Your task to perform on an android device: star an email in the gmail app Image 0: 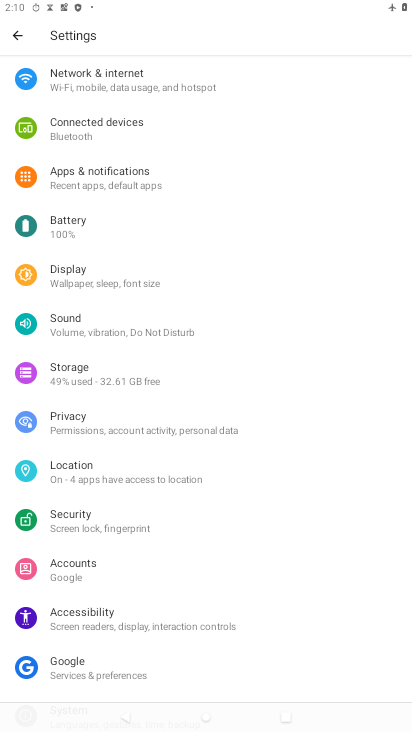
Step 0: press home button
Your task to perform on an android device: star an email in the gmail app Image 1: 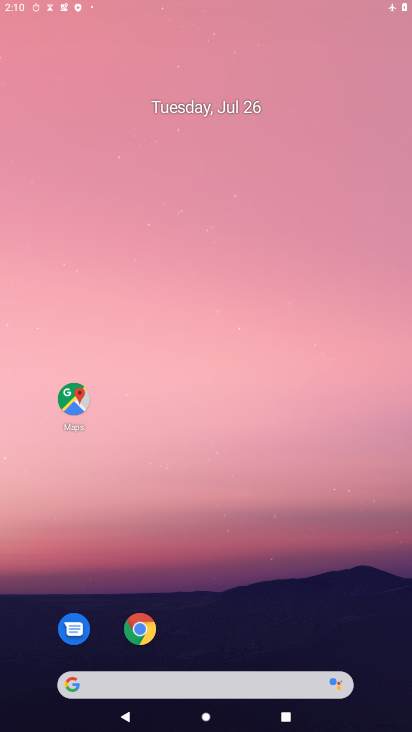
Step 1: drag from (320, 668) to (385, 76)
Your task to perform on an android device: star an email in the gmail app Image 2: 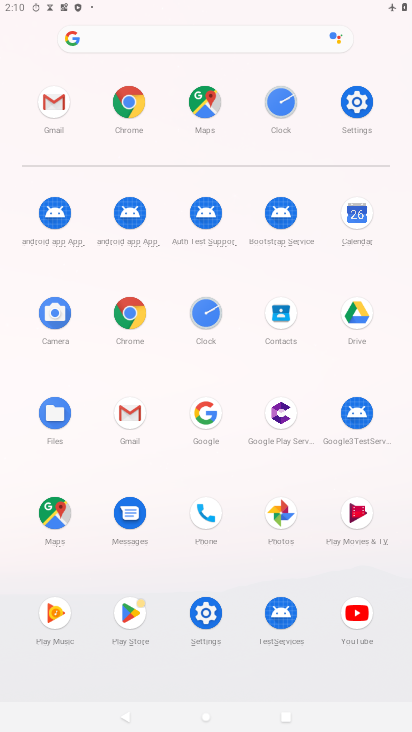
Step 2: click (127, 409)
Your task to perform on an android device: star an email in the gmail app Image 3: 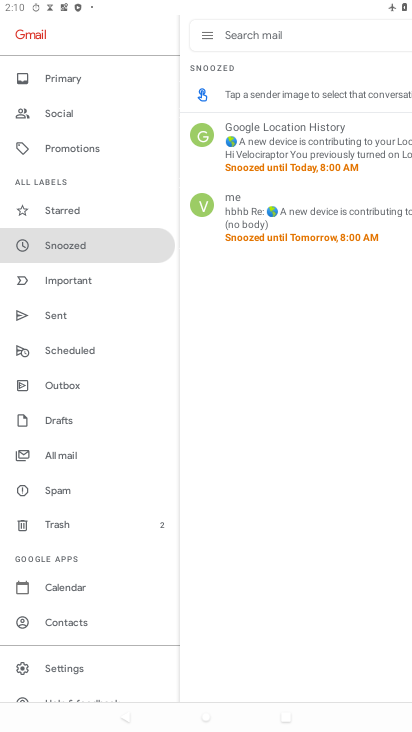
Step 3: click (80, 215)
Your task to perform on an android device: star an email in the gmail app Image 4: 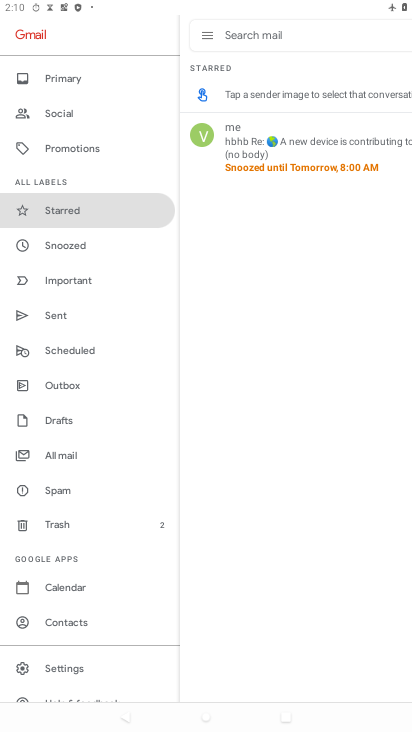
Step 4: click (89, 241)
Your task to perform on an android device: star an email in the gmail app Image 5: 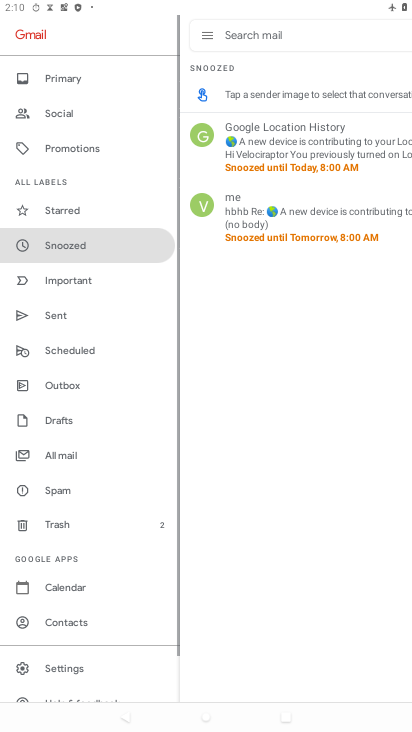
Step 5: drag from (184, 280) to (11, 279)
Your task to perform on an android device: star an email in the gmail app Image 6: 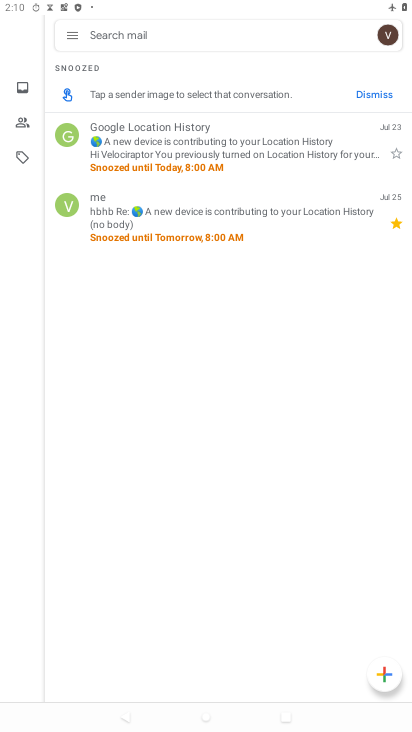
Step 6: click (398, 150)
Your task to perform on an android device: star an email in the gmail app Image 7: 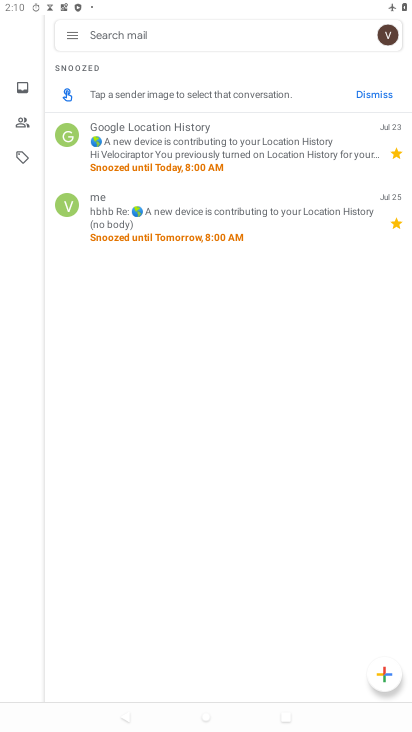
Step 7: task complete